Your task to perform on an android device: Open the phone app and click the voicemail tab. Image 0: 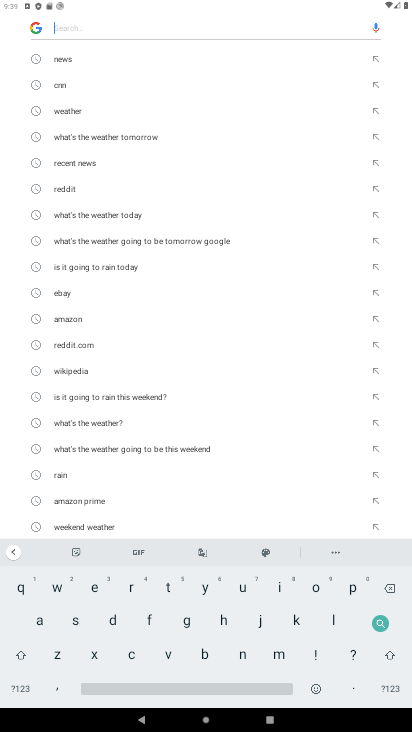
Step 0: press home button
Your task to perform on an android device: Open the phone app and click the voicemail tab. Image 1: 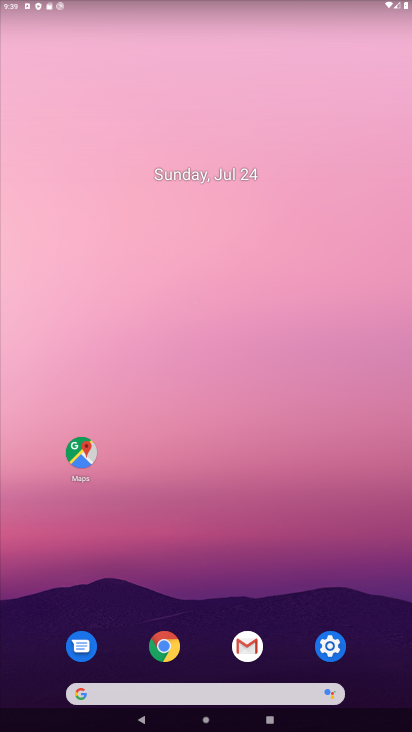
Step 1: drag from (268, 702) to (251, 90)
Your task to perform on an android device: Open the phone app and click the voicemail tab. Image 2: 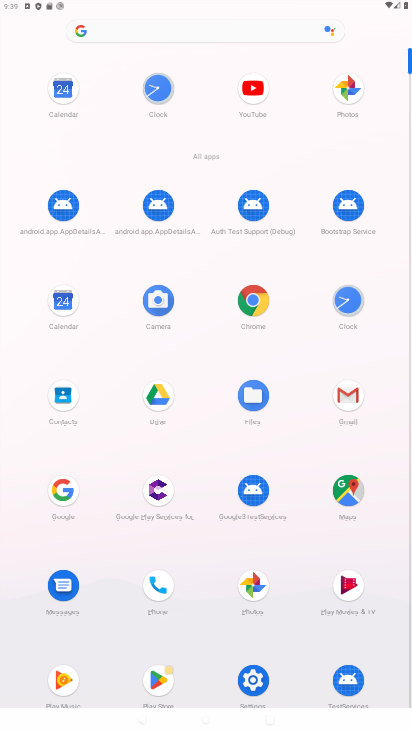
Step 2: click (168, 581)
Your task to perform on an android device: Open the phone app and click the voicemail tab. Image 3: 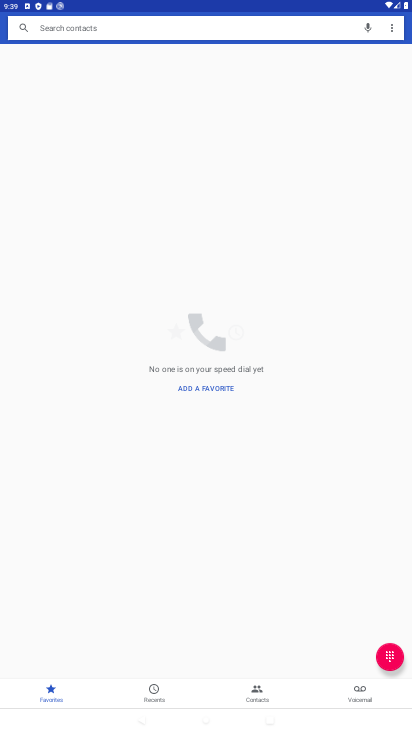
Step 3: click (359, 694)
Your task to perform on an android device: Open the phone app and click the voicemail tab. Image 4: 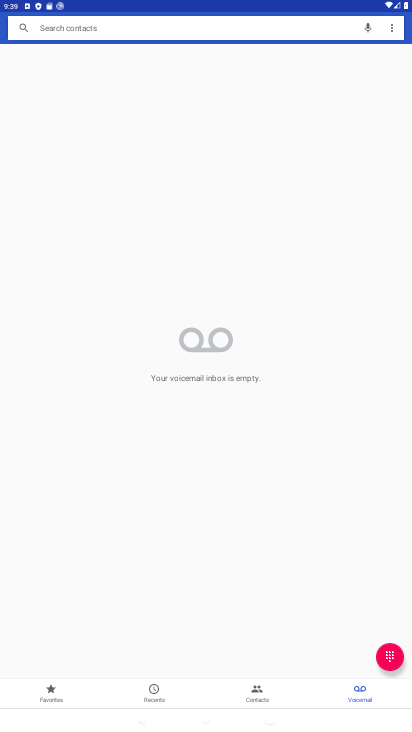
Step 4: task complete